Your task to perform on an android device: Show me productivity apps on the Play Store Image 0: 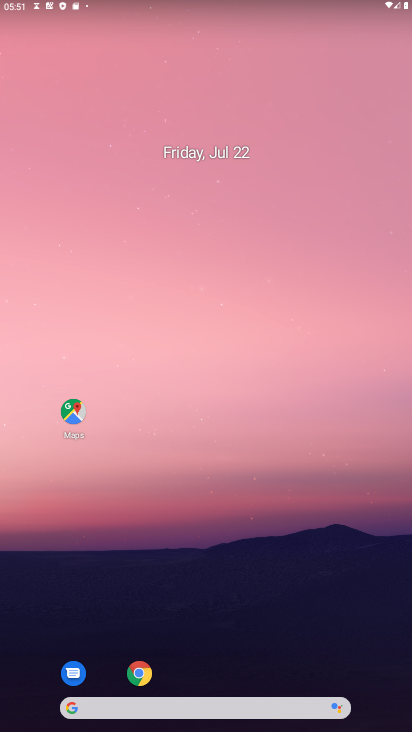
Step 0: press home button
Your task to perform on an android device: Show me productivity apps on the Play Store Image 1: 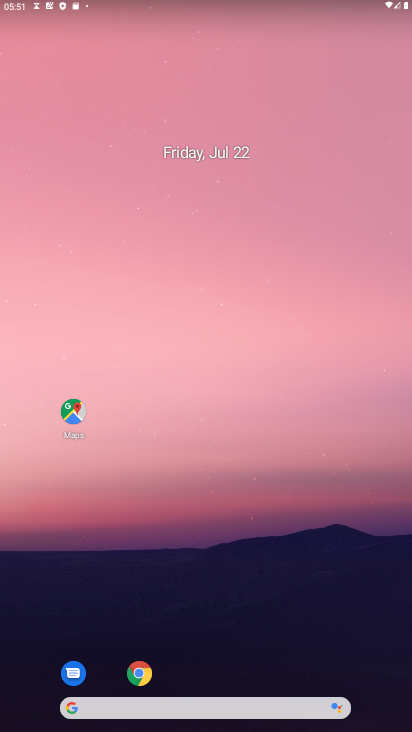
Step 1: drag from (243, 665) to (239, 199)
Your task to perform on an android device: Show me productivity apps on the Play Store Image 2: 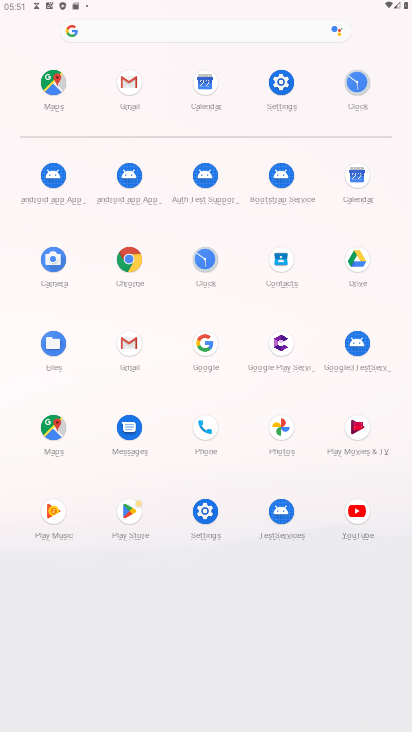
Step 2: click (133, 515)
Your task to perform on an android device: Show me productivity apps on the Play Store Image 3: 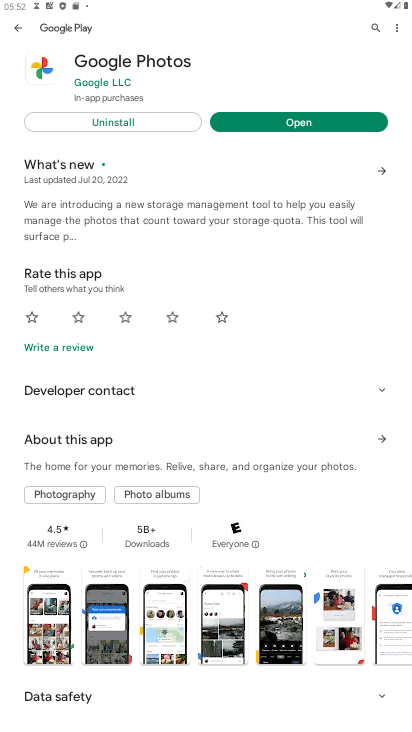
Step 3: click (19, 34)
Your task to perform on an android device: Show me productivity apps on the Play Store Image 4: 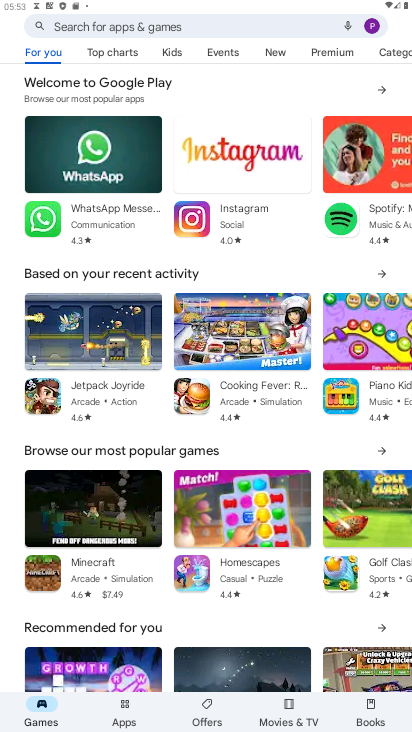
Step 4: click (122, 714)
Your task to perform on an android device: Show me productivity apps on the Play Store Image 5: 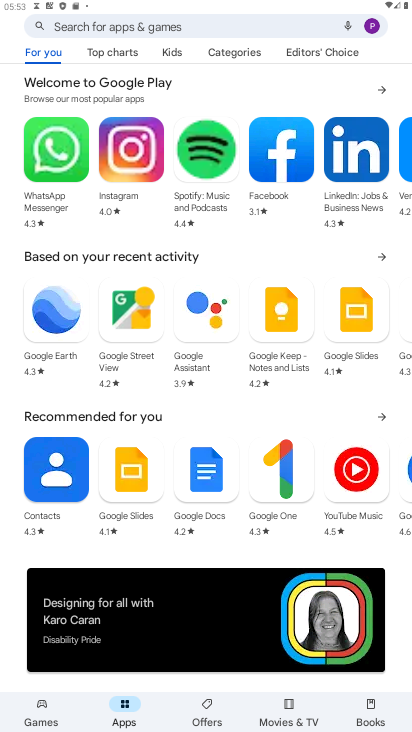
Step 5: click (233, 57)
Your task to perform on an android device: Show me productivity apps on the Play Store Image 6: 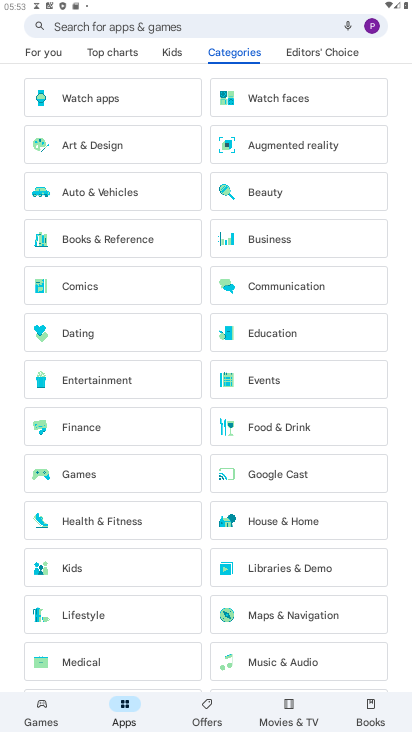
Step 6: drag from (194, 598) to (341, 13)
Your task to perform on an android device: Show me productivity apps on the Play Store Image 7: 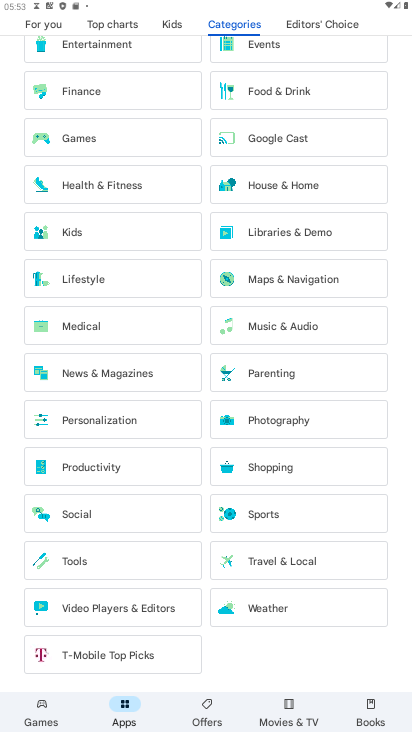
Step 7: click (95, 476)
Your task to perform on an android device: Show me productivity apps on the Play Store Image 8: 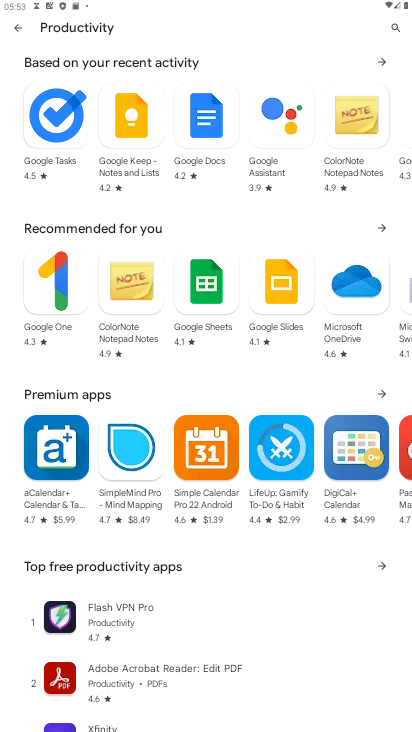
Step 8: task complete